Your task to perform on an android device: Go to accessibility settings Image 0: 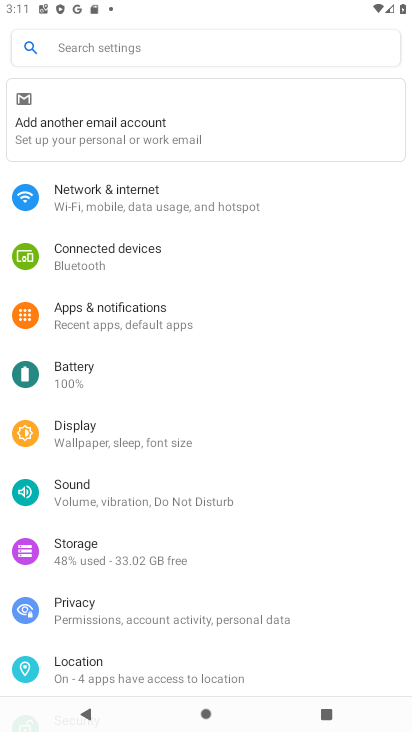
Step 0: drag from (230, 642) to (247, 202)
Your task to perform on an android device: Go to accessibility settings Image 1: 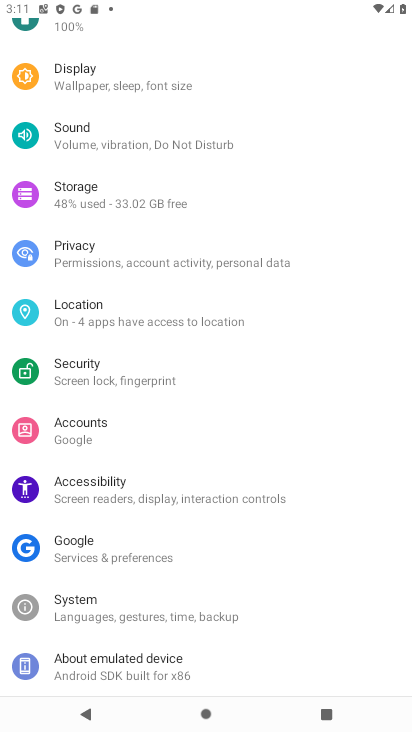
Step 1: click (194, 485)
Your task to perform on an android device: Go to accessibility settings Image 2: 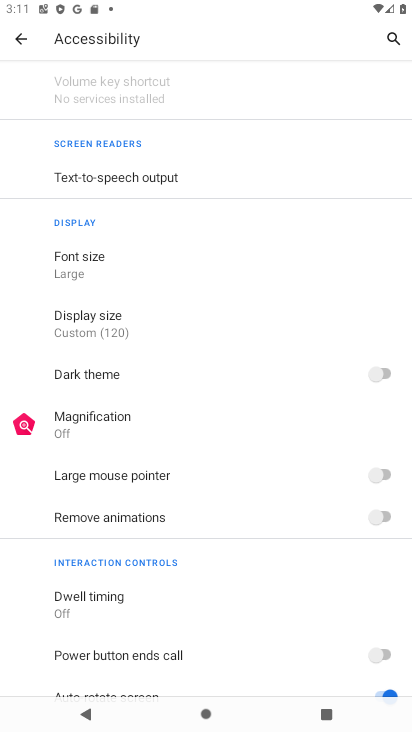
Step 2: task complete